Your task to perform on an android device: turn off javascript in the chrome app Image 0: 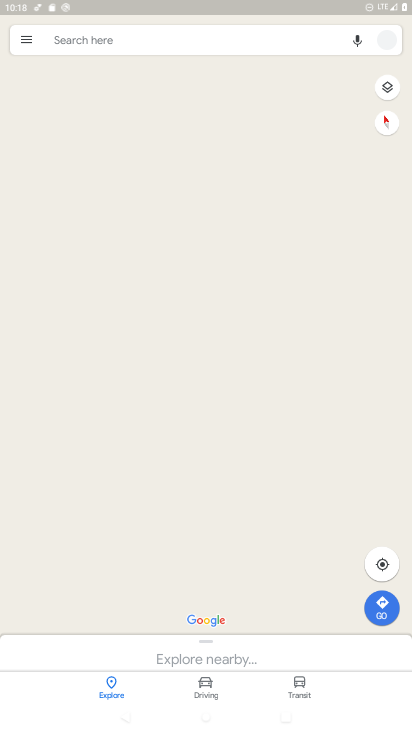
Step 0: press home button
Your task to perform on an android device: turn off javascript in the chrome app Image 1: 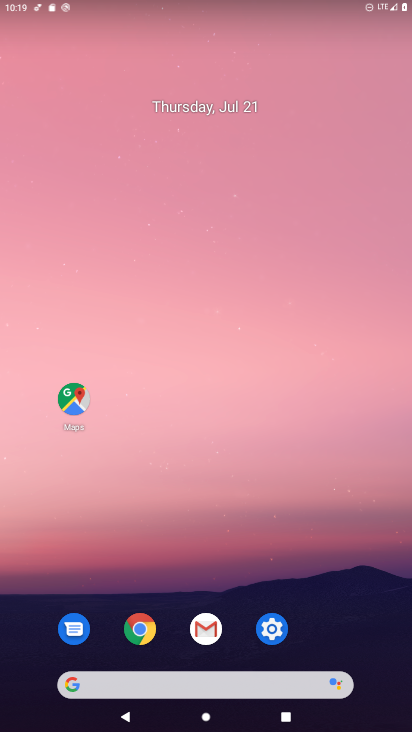
Step 1: click (139, 629)
Your task to perform on an android device: turn off javascript in the chrome app Image 2: 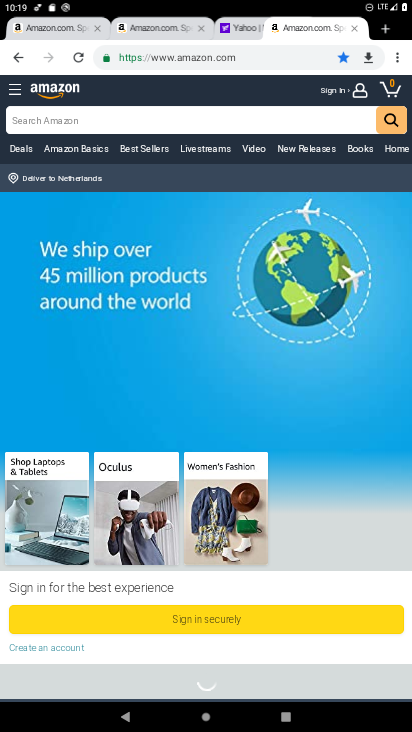
Step 2: click (400, 60)
Your task to perform on an android device: turn off javascript in the chrome app Image 3: 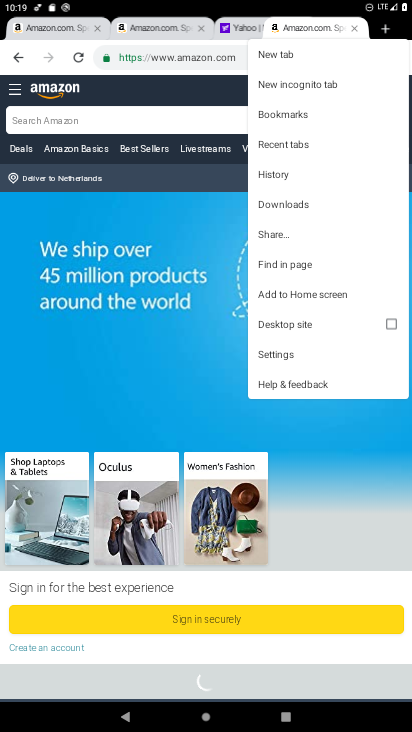
Step 3: click (271, 352)
Your task to perform on an android device: turn off javascript in the chrome app Image 4: 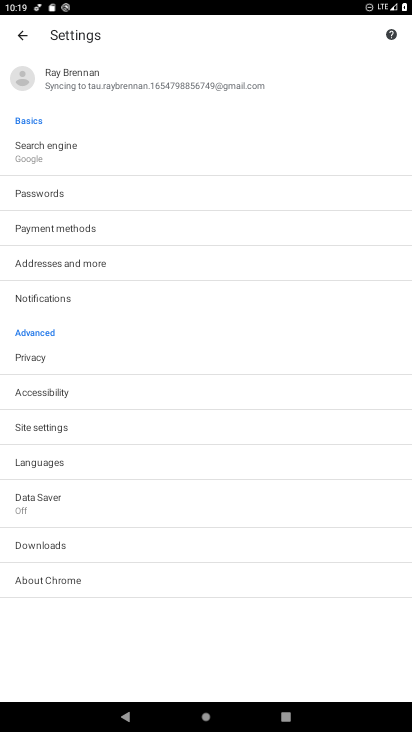
Step 4: click (58, 430)
Your task to perform on an android device: turn off javascript in the chrome app Image 5: 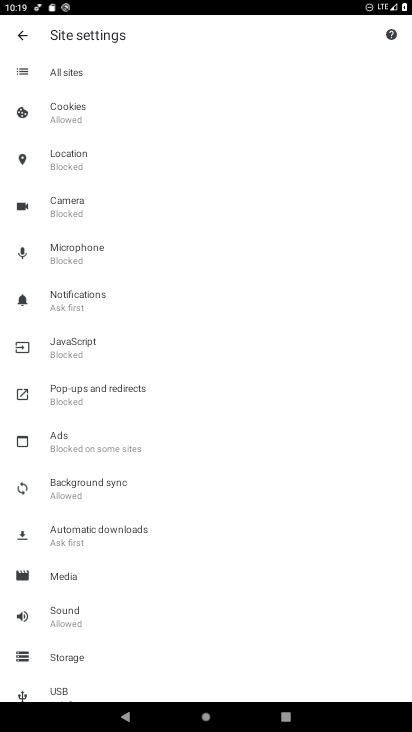
Step 5: click (67, 339)
Your task to perform on an android device: turn off javascript in the chrome app Image 6: 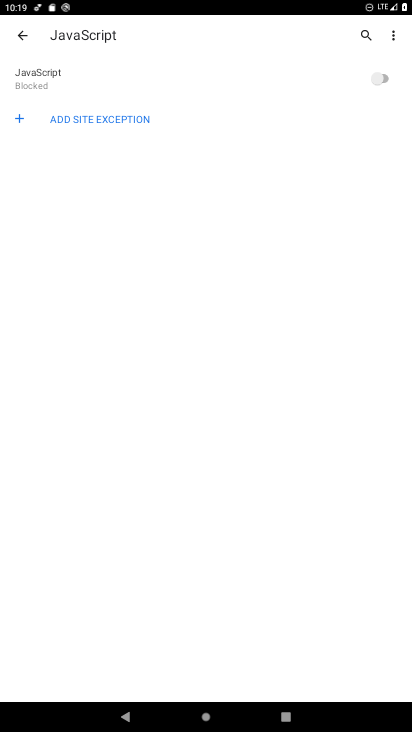
Step 6: click (386, 76)
Your task to perform on an android device: turn off javascript in the chrome app Image 7: 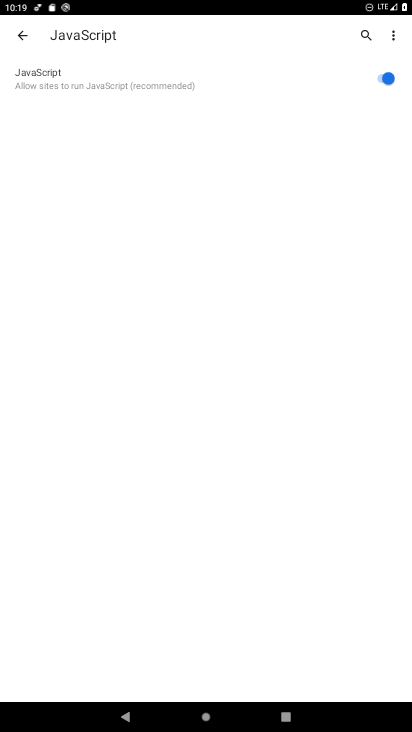
Step 7: click (386, 76)
Your task to perform on an android device: turn off javascript in the chrome app Image 8: 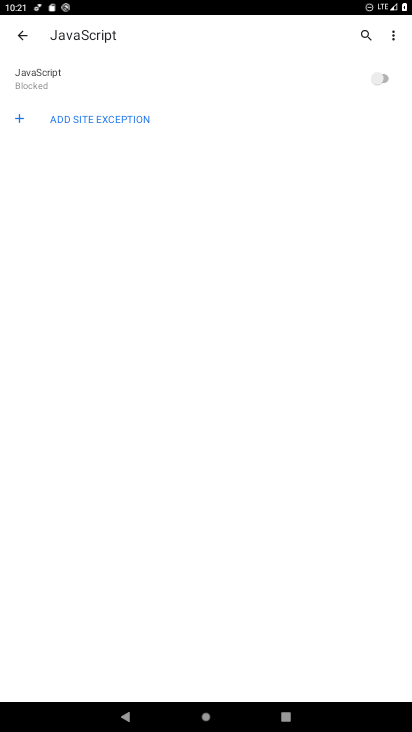
Step 8: task complete